Your task to perform on an android device: toggle data saver in the chrome app Image 0: 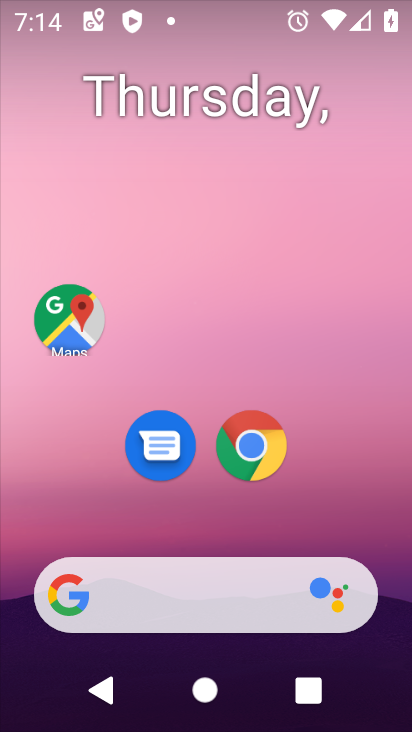
Step 0: click (252, 441)
Your task to perform on an android device: toggle data saver in the chrome app Image 1: 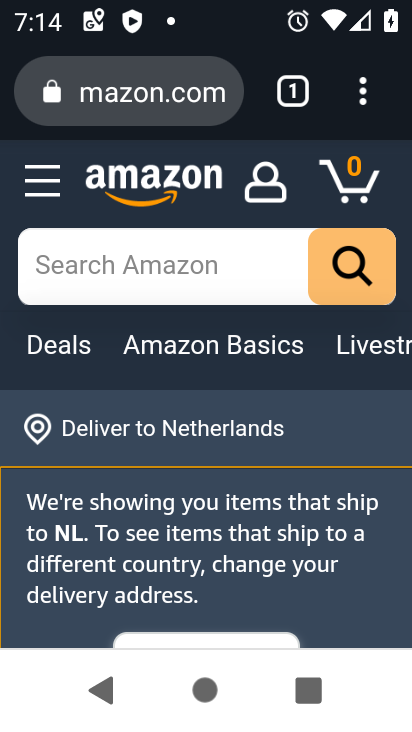
Step 1: click (360, 95)
Your task to perform on an android device: toggle data saver in the chrome app Image 2: 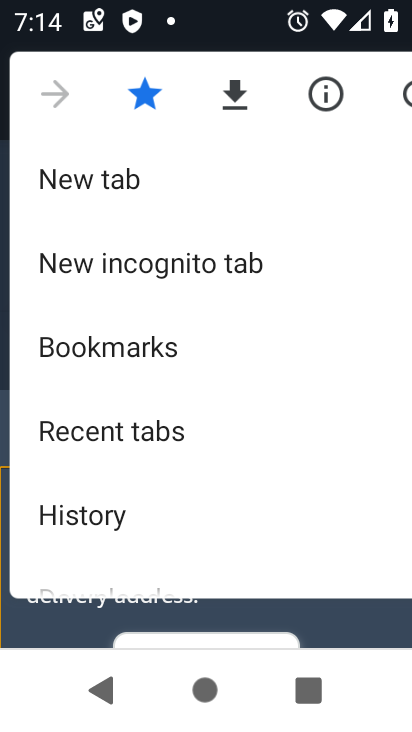
Step 2: drag from (207, 313) to (180, 24)
Your task to perform on an android device: toggle data saver in the chrome app Image 3: 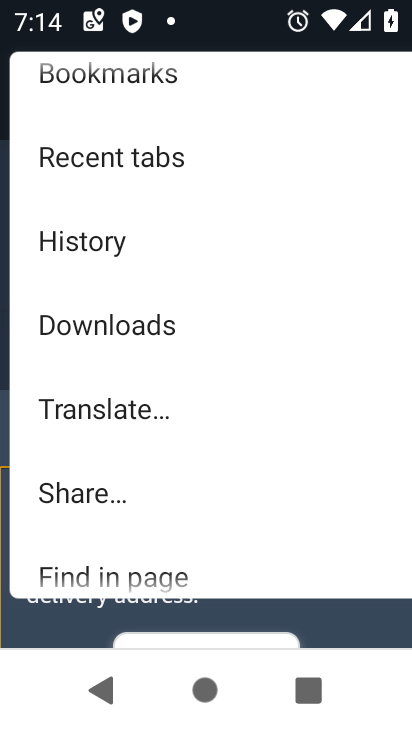
Step 3: drag from (242, 451) to (228, 140)
Your task to perform on an android device: toggle data saver in the chrome app Image 4: 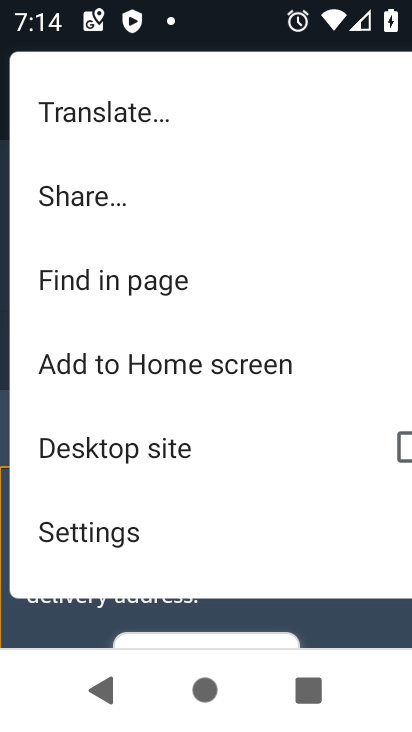
Step 4: click (81, 535)
Your task to perform on an android device: toggle data saver in the chrome app Image 5: 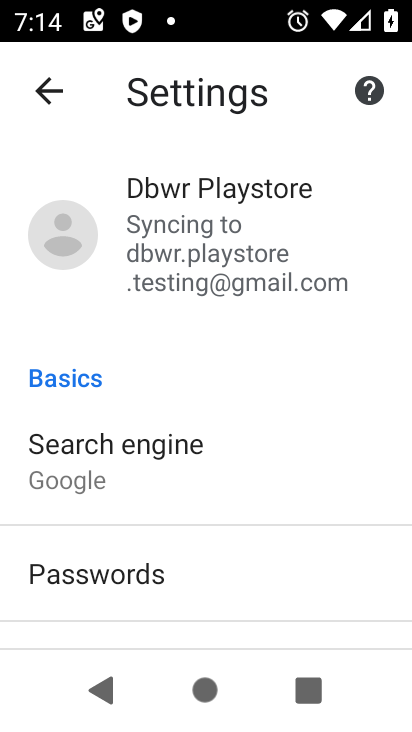
Step 5: drag from (260, 501) to (204, 155)
Your task to perform on an android device: toggle data saver in the chrome app Image 6: 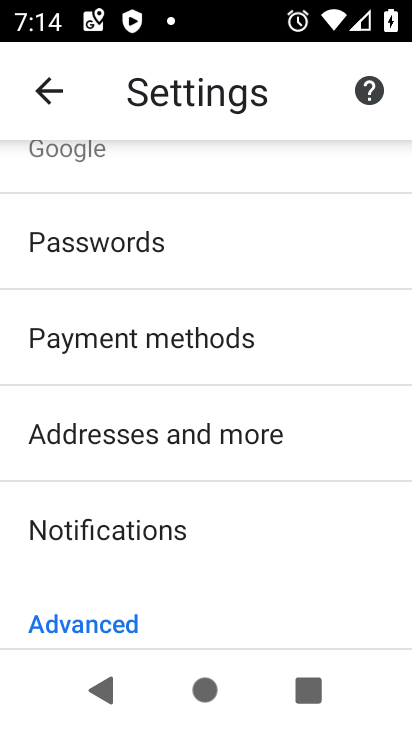
Step 6: drag from (239, 508) to (235, 190)
Your task to perform on an android device: toggle data saver in the chrome app Image 7: 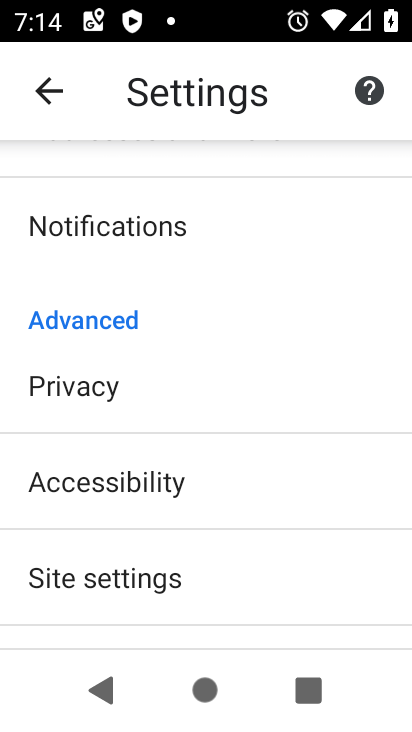
Step 7: drag from (284, 453) to (272, 191)
Your task to perform on an android device: toggle data saver in the chrome app Image 8: 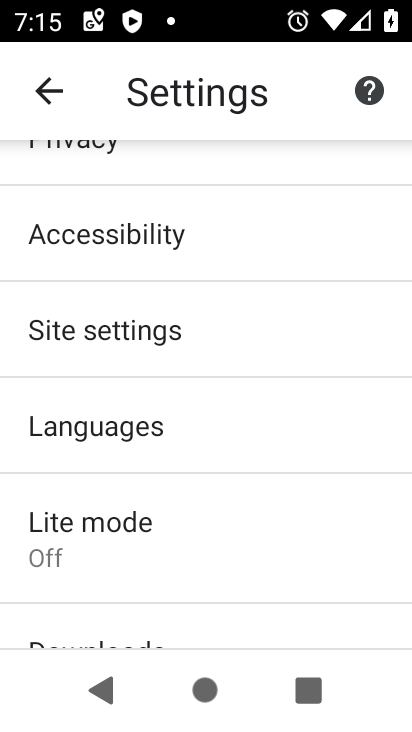
Step 8: drag from (291, 450) to (265, 160)
Your task to perform on an android device: toggle data saver in the chrome app Image 9: 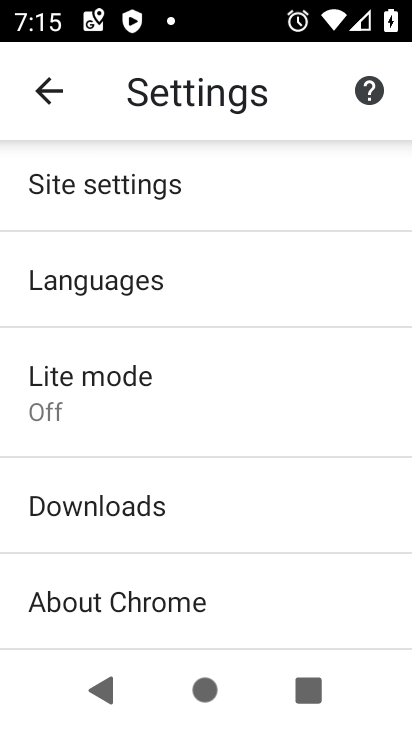
Step 9: click (108, 378)
Your task to perform on an android device: toggle data saver in the chrome app Image 10: 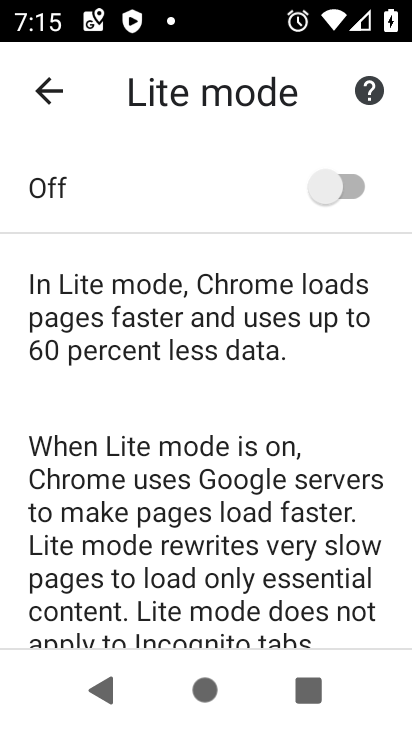
Step 10: click (330, 182)
Your task to perform on an android device: toggle data saver in the chrome app Image 11: 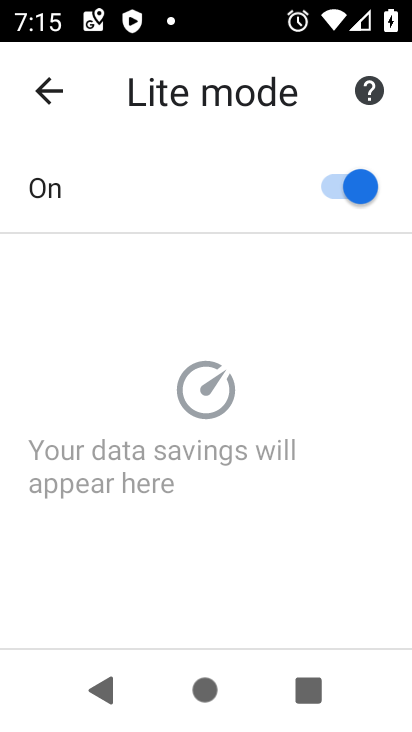
Step 11: task complete